Your task to perform on an android device: Open calendar and show me the first week of next month Image 0: 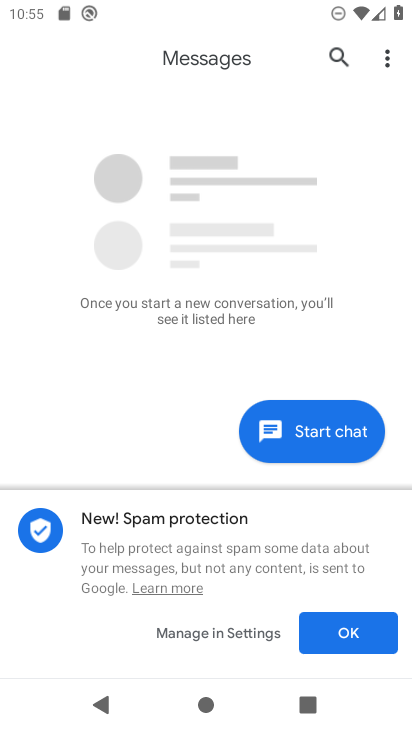
Step 0: press home button
Your task to perform on an android device: Open calendar and show me the first week of next month Image 1: 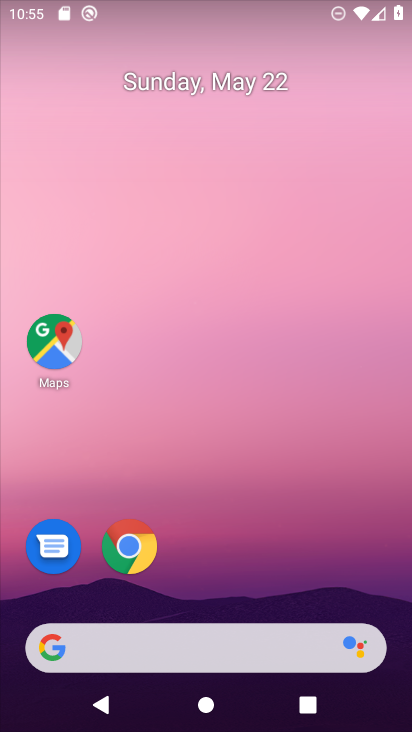
Step 1: drag from (223, 603) to (208, 0)
Your task to perform on an android device: Open calendar and show me the first week of next month Image 2: 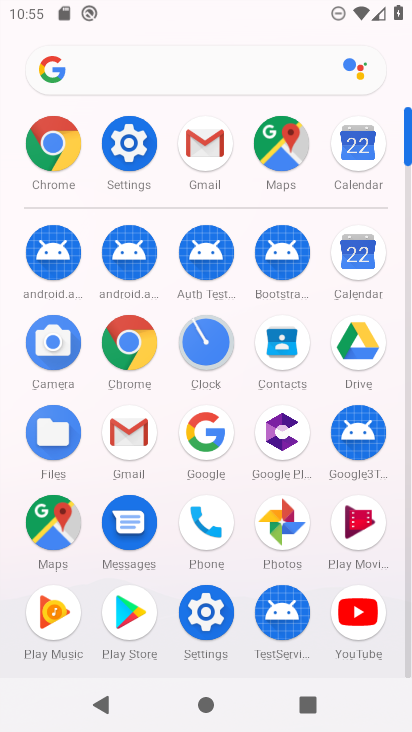
Step 2: click (362, 252)
Your task to perform on an android device: Open calendar and show me the first week of next month Image 3: 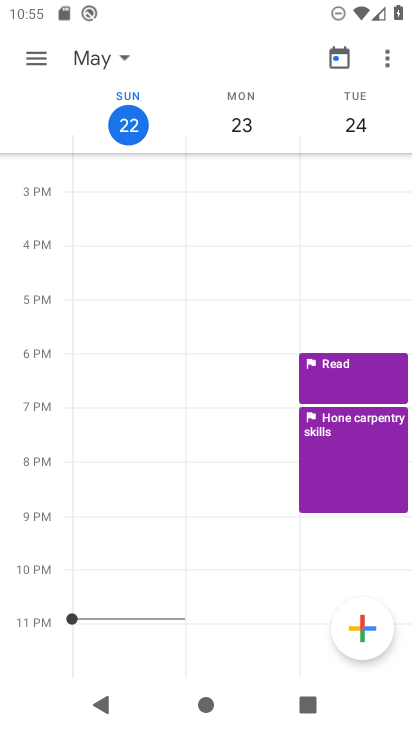
Step 3: click (35, 55)
Your task to perform on an android device: Open calendar and show me the first week of next month Image 4: 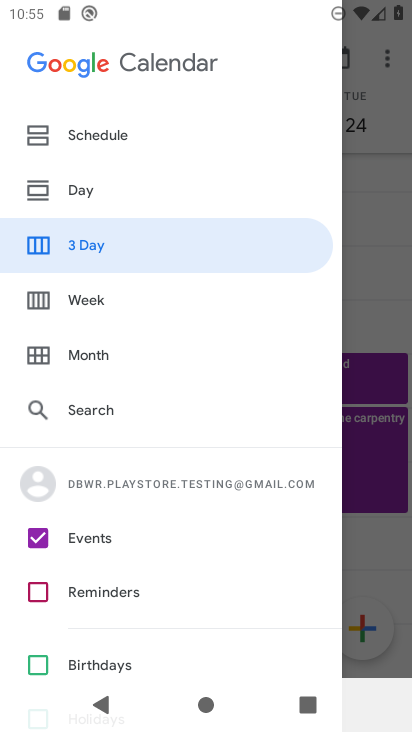
Step 4: click (103, 297)
Your task to perform on an android device: Open calendar and show me the first week of next month Image 5: 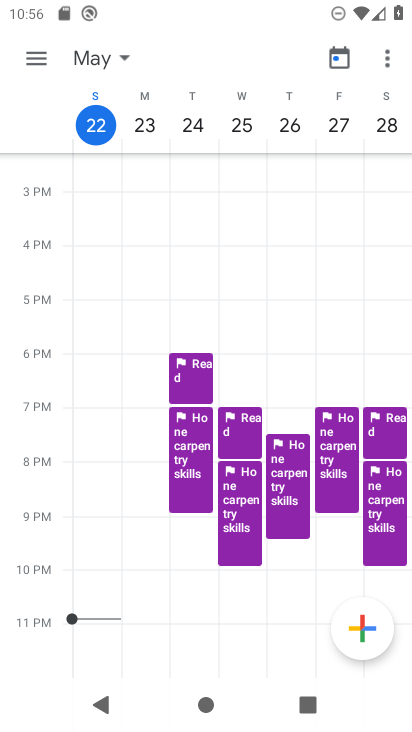
Step 5: task complete